Your task to perform on an android device: Open Wikipedia Image 0: 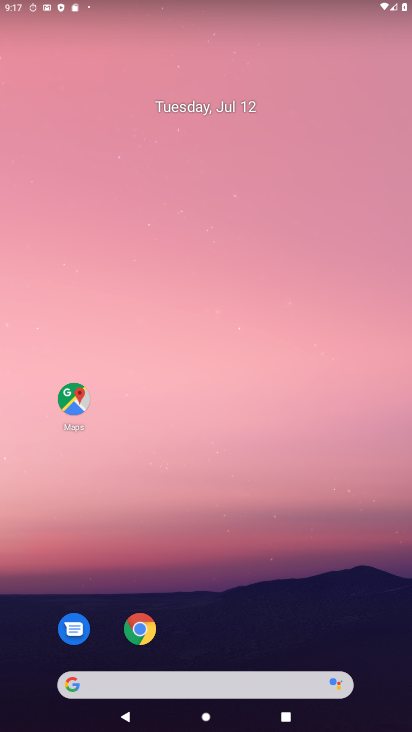
Step 0: drag from (350, 705) to (296, 137)
Your task to perform on an android device: Open Wikipedia Image 1: 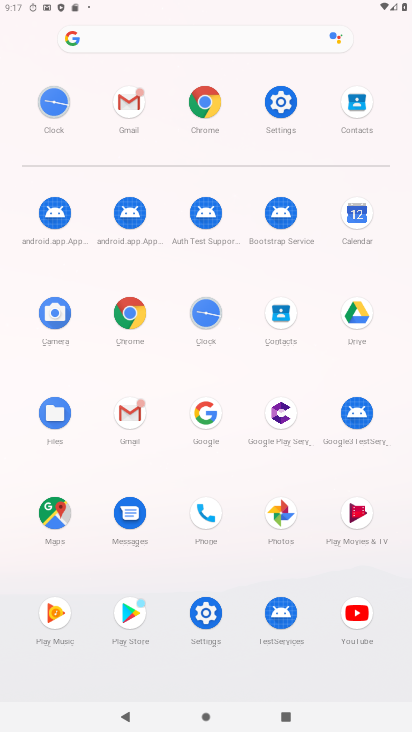
Step 1: click (131, 316)
Your task to perform on an android device: Open Wikipedia Image 2: 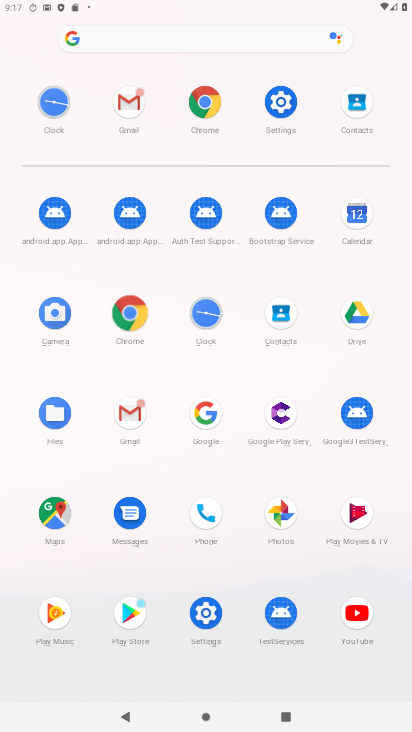
Step 2: click (131, 316)
Your task to perform on an android device: Open Wikipedia Image 3: 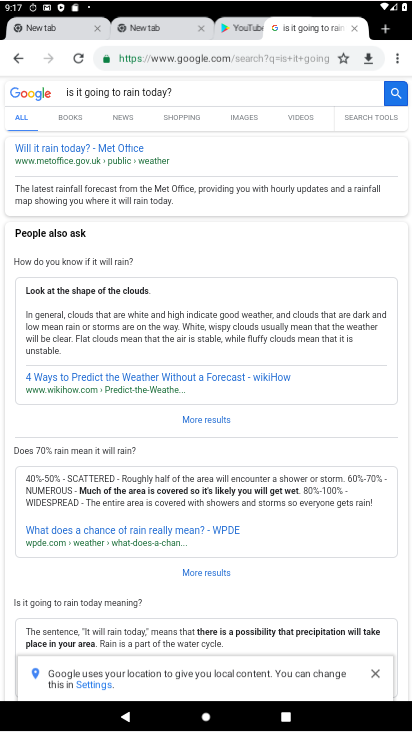
Step 3: click (131, 316)
Your task to perform on an android device: Open Wikipedia Image 4: 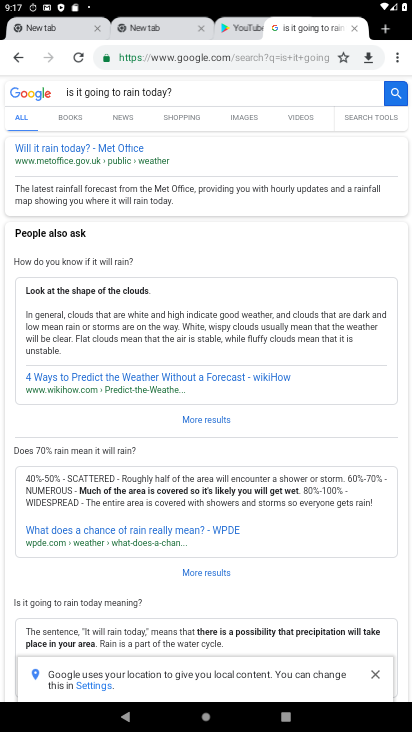
Step 4: drag from (400, 58) to (279, 52)
Your task to perform on an android device: Open Wikipedia Image 5: 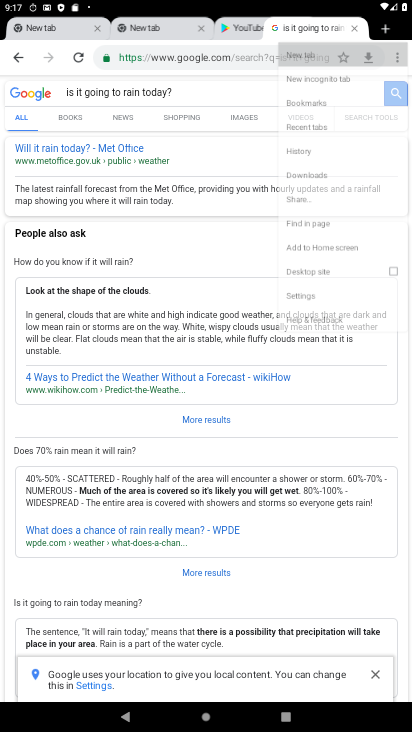
Step 5: click (280, 51)
Your task to perform on an android device: Open Wikipedia Image 6: 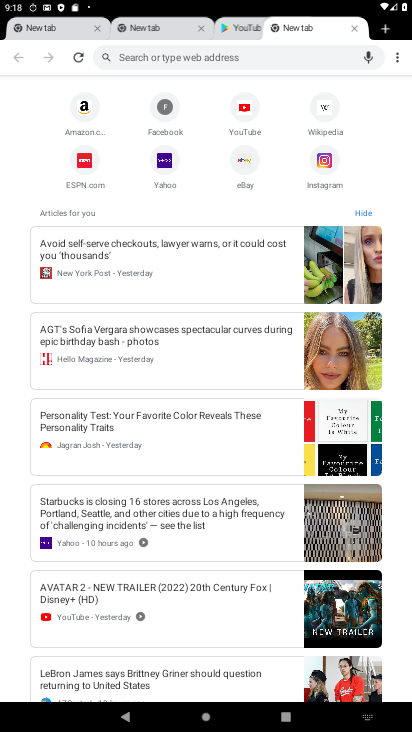
Step 6: click (333, 110)
Your task to perform on an android device: Open Wikipedia Image 7: 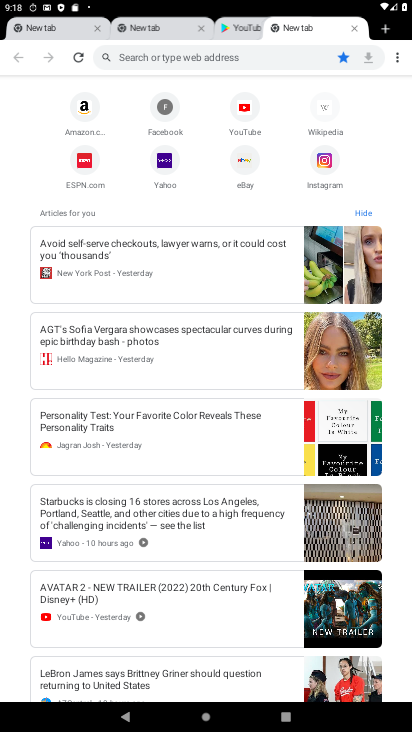
Step 7: click (330, 113)
Your task to perform on an android device: Open Wikipedia Image 8: 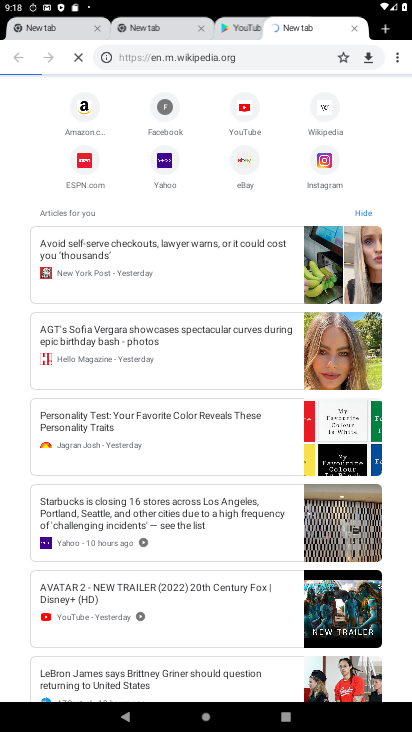
Step 8: click (330, 113)
Your task to perform on an android device: Open Wikipedia Image 9: 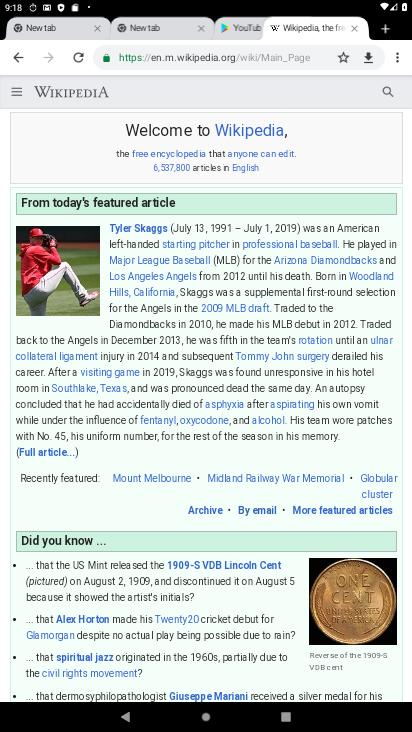
Step 9: task complete